Your task to perform on an android device: Go to Reddit.com Image 0: 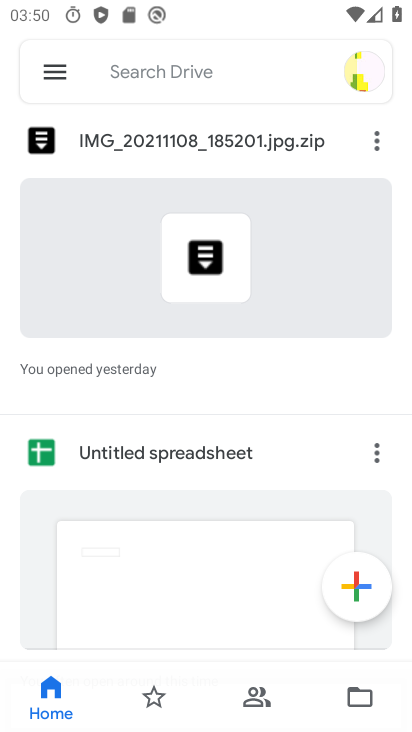
Step 0: press home button
Your task to perform on an android device: Go to Reddit.com Image 1: 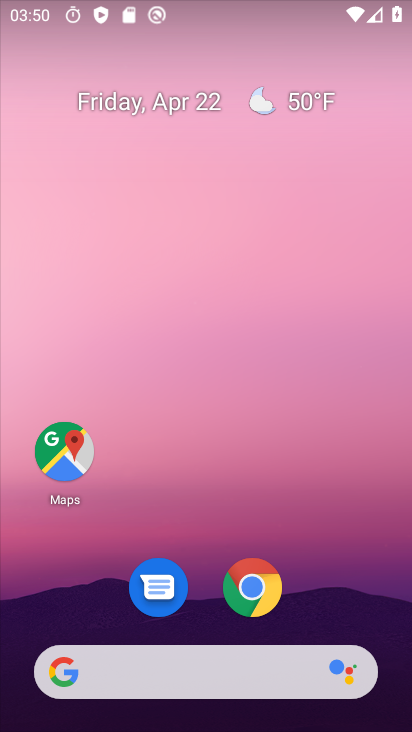
Step 1: click (255, 596)
Your task to perform on an android device: Go to Reddit.com Image 2: 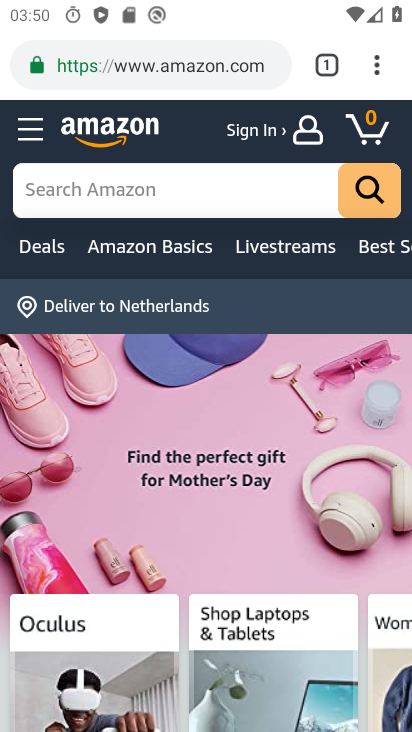
Step 2: click (132, 67)
Your task to perform on an android device: Go to Reddit.com Image 3: 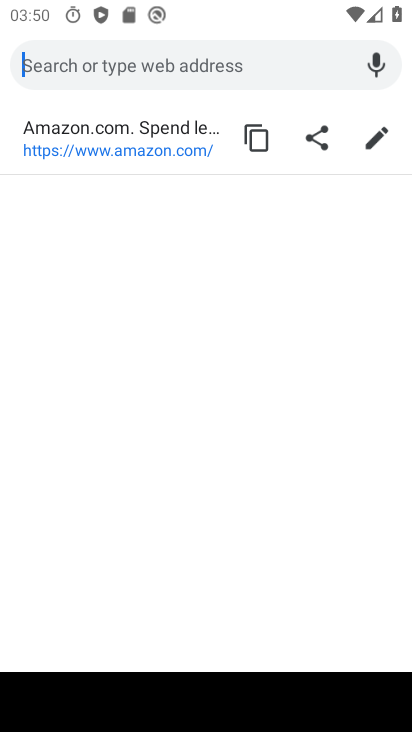
Step 3: type "reddit.com"
Your task to perform on an android device: Go to Reddit.com Image 4: 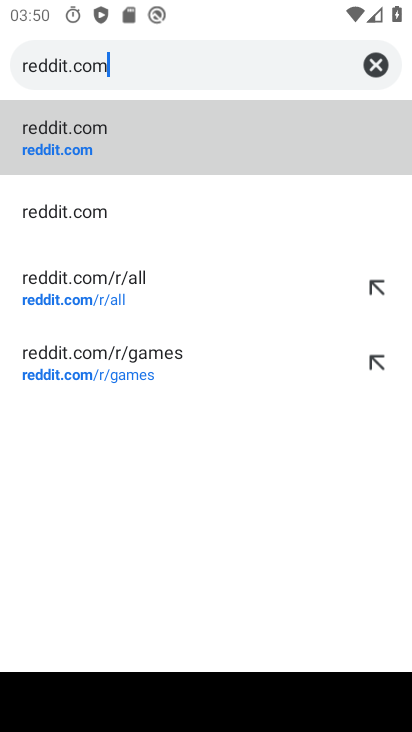
Step 4: click (82, 139)
Your task to perform on an android device: Go to Reddit.com Image 5: 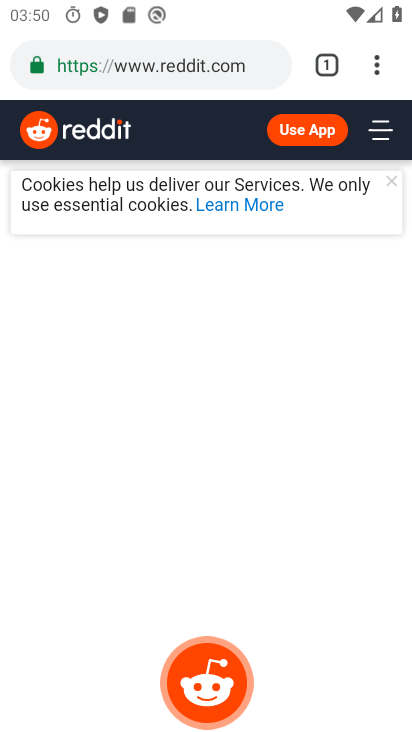
Step 5: task complete